Your task to perform on an android device: Go to CNN.com Image 0: 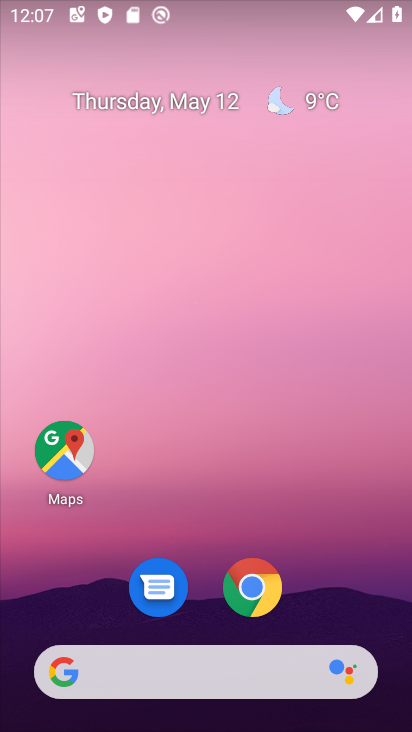
Step 0: drag from (331, 595) to (347, 157)
Your task to perform on an android device: Go to CNN.com Image 1: 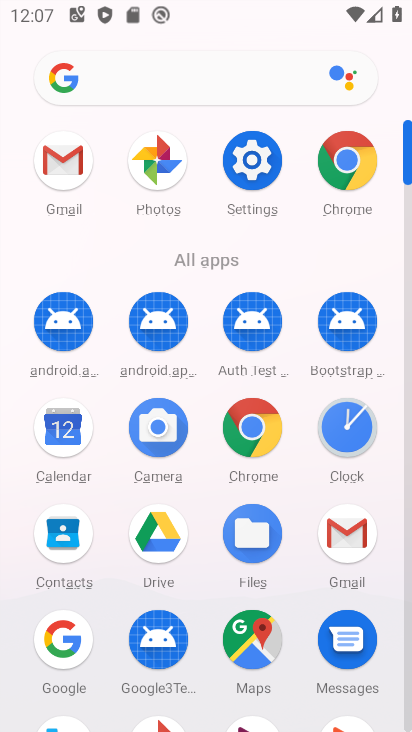
Step 1: click (342, 148)
Your task to perform on an android device: Go to CNN.com Image 2: 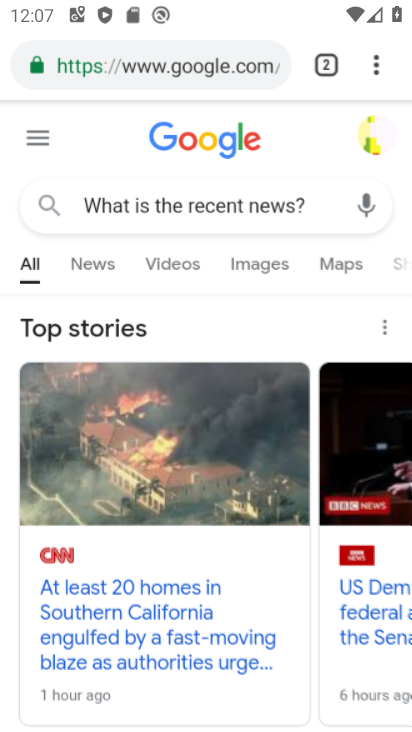
Step 2: click (352, 57)
Your task to perform on an android device: Go to CNN.com Image 3: 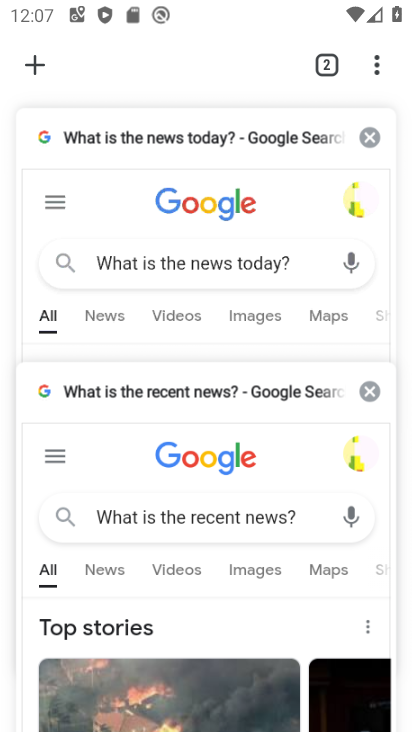
Step 3: click (358, 68)
Your task to perform on an android device: Go to CNN.com Image 4: 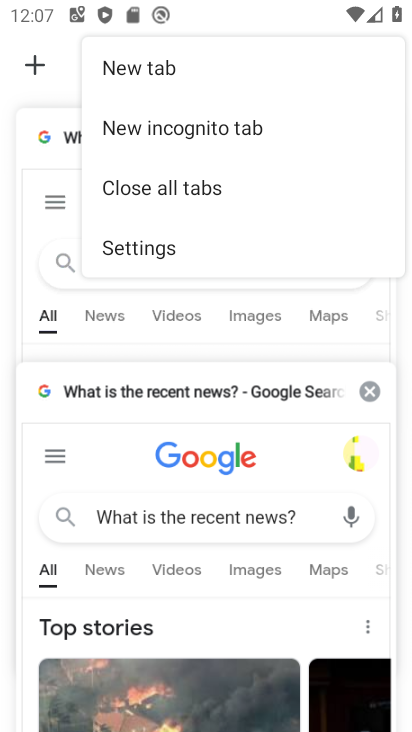
Step 4: click (132, 72)
Your task to perform on an android device: Go to CNN.com Image 5: 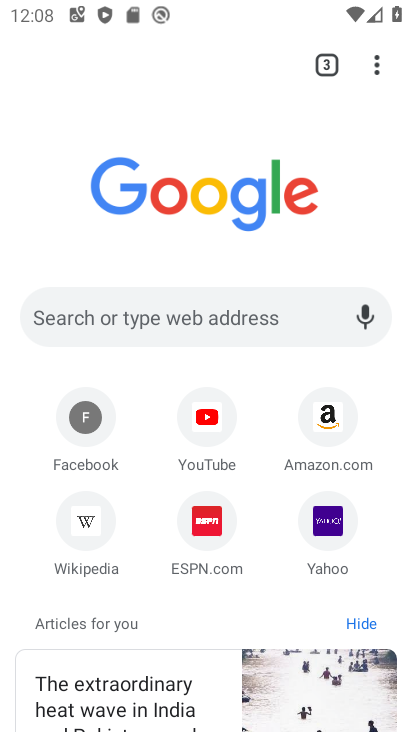
Step 5: click (103, 301)
Your task to perform on an android device: Go to CNN.com Image 6: 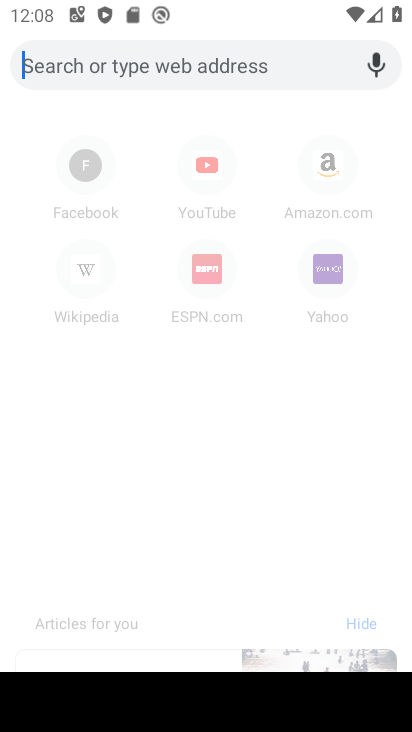
Step 6: type "CNN.com"
Your task to perform on an android device: Go to CNN.com Image 7: 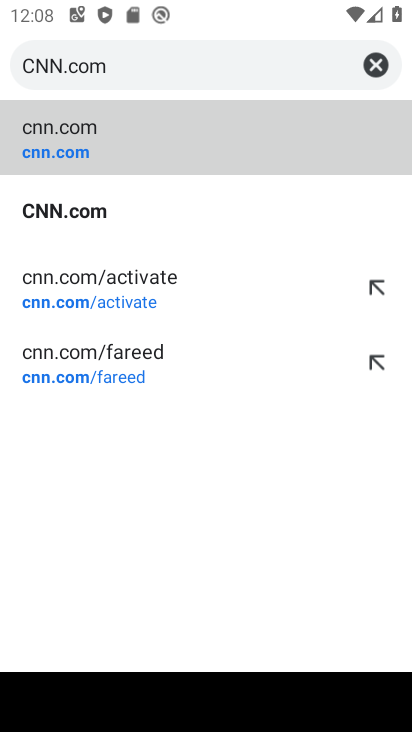
Step 7: click (45, 211)
Your task to perform on an android device: Go to CNN.com Image 8: 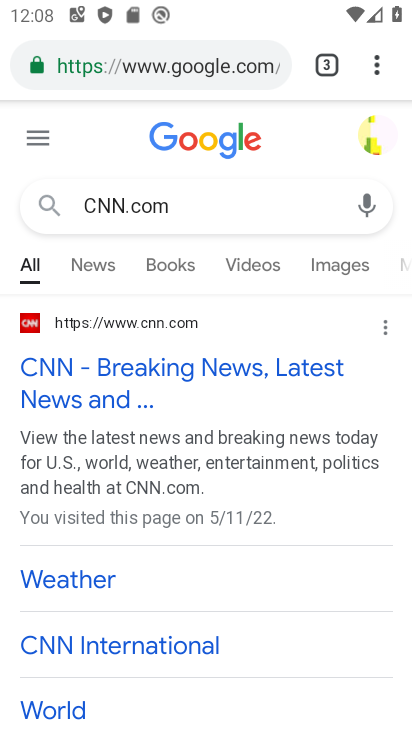
Step 8: task complete